Your task to perform on an android device: turn on sleep mode Image 0: 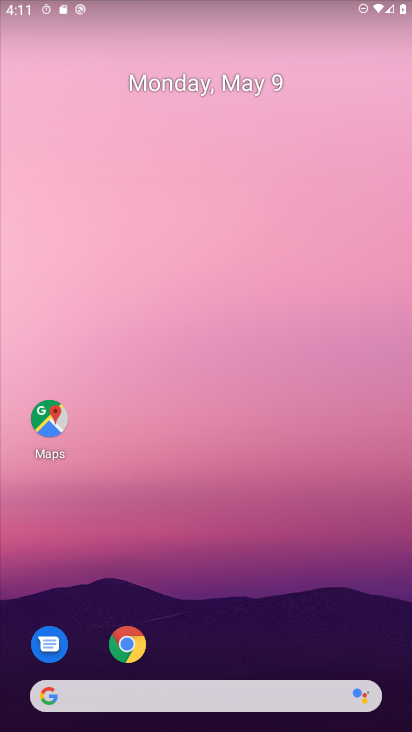
Step 0: drag from (214, 658) to (148, 126)
Your task to perform on an android device: turn on sleep mode Image 1: 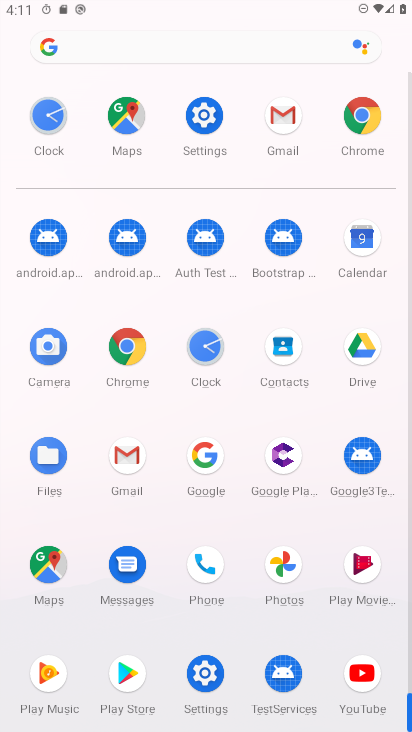
Step 1: click (210, 707)
Your task to perform on an android device: turn on sleep mode Image 2: 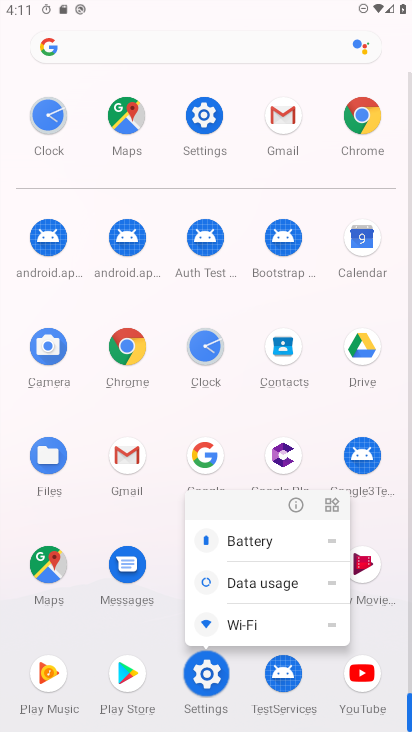
Step 2: click (210, 707)
Your task to perform on an android device: turn on sleep mode Image 3: 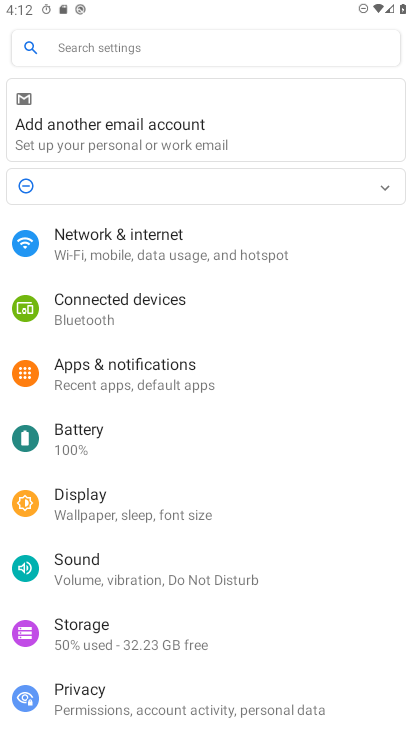
Step 3: task complete